Your task to perform on an android device: Open the map Image 0: 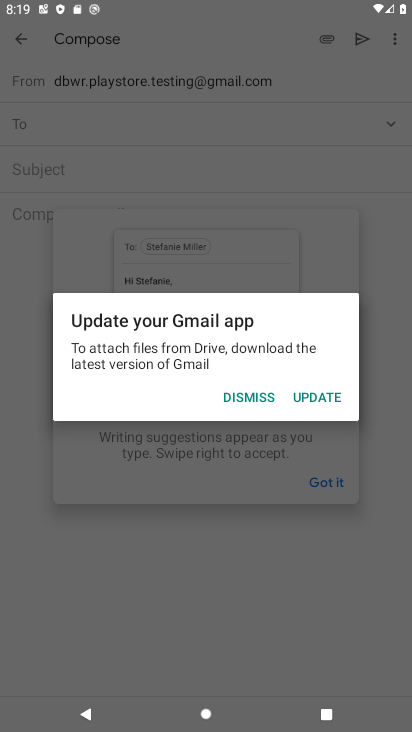
Step 0: press home button
Your task to perform on an android device: Open the map Image 1: 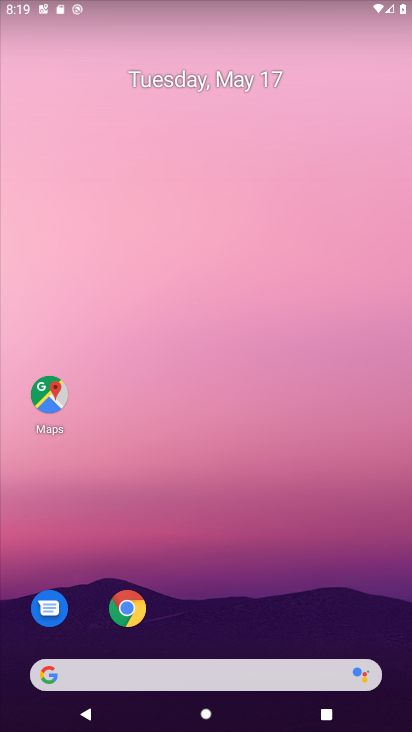
Step 1: drag from (363, 623) to (394, 260)
Your task to perform on an android device: Open the map Image 2: 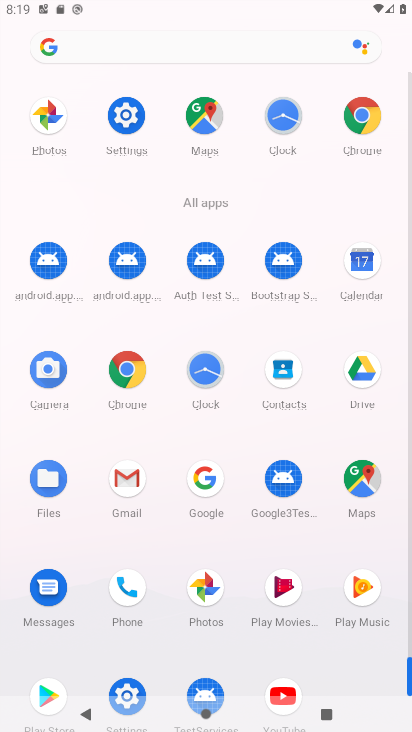
Step 2: click (366, 496)
Your task to perform on an android device: Open the map Image 3: 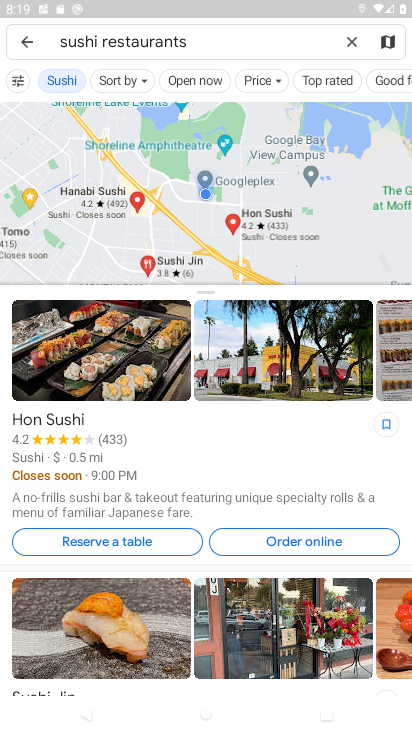
Step 3: task complete